Your task to perform on an android device: Open Chrome and go to settings Image 0: 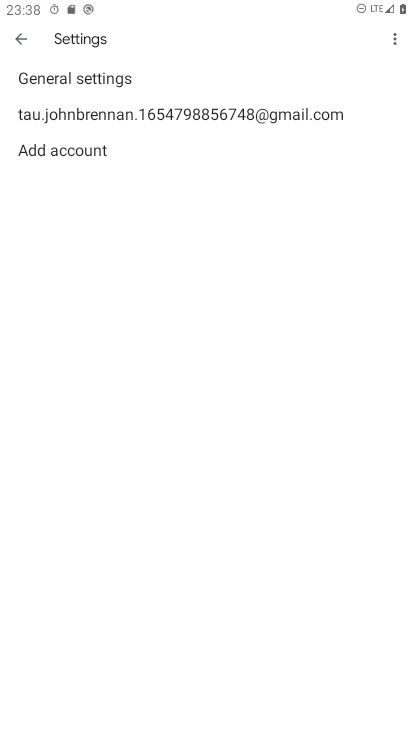
Step 0: press home button
Your task to perform on an android device: Open Chrome and go to settings Image 1: 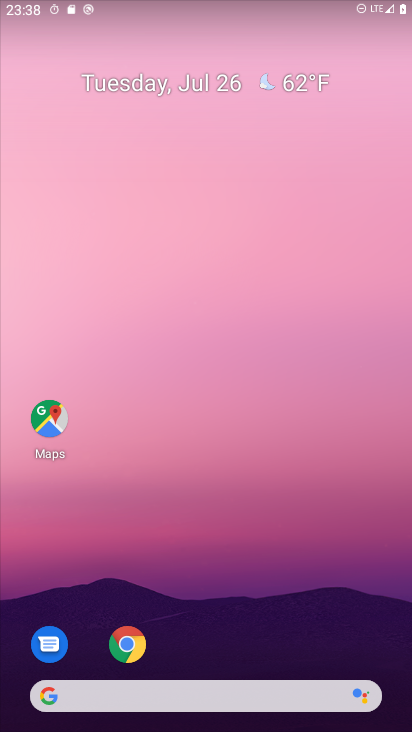
Step 1: click (129, 641)
Your task to perform on an android device: Open Chrome and go to settings Image 2: 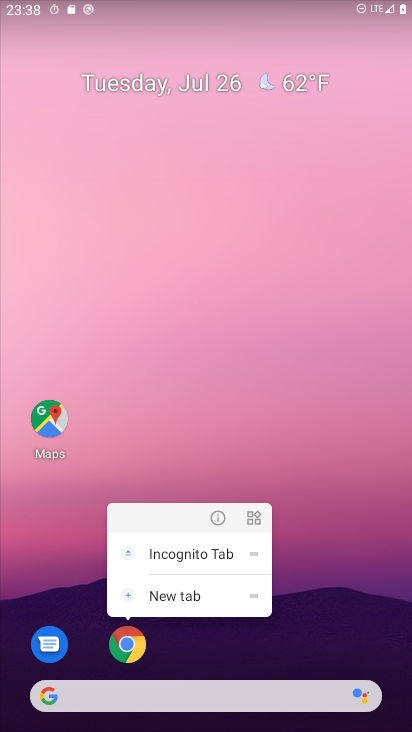
Step 2: click (127, 648)
Your task to perform on an android device: Open Chrome and go to settings Image 3: 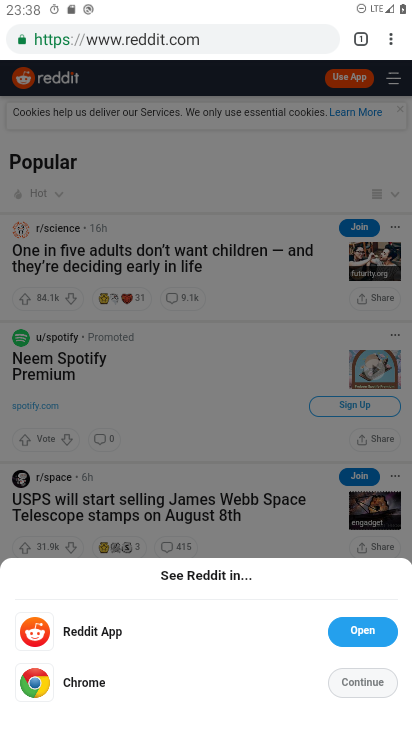
Step 3: task complete